Your task to perform on an android device: toggle location history Image 0: 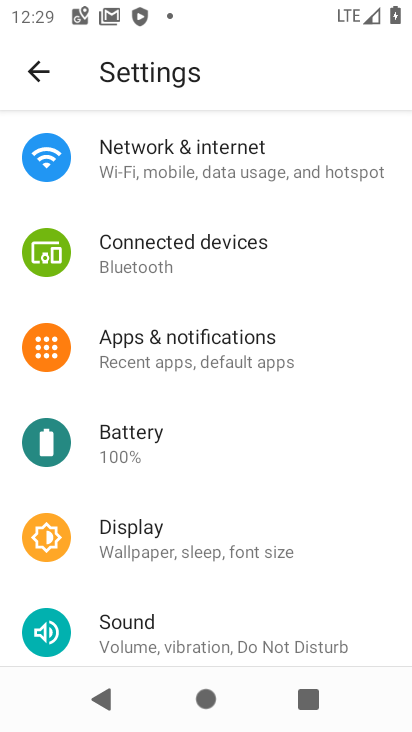
Step 0: press home button
Your task to perform on an android device: toggle location history Image 1: 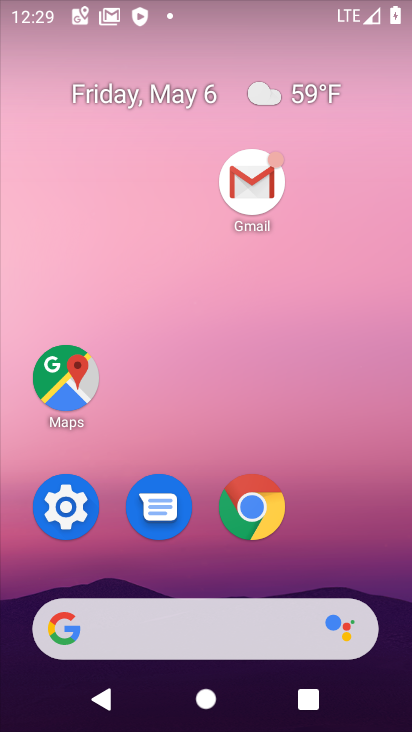
Step 1: click (65, 388)
Your task to perform on an android device: toggle location history Image 2: 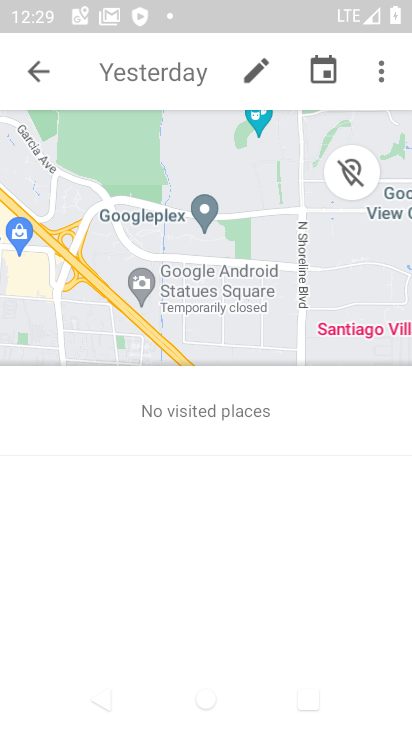
Step 2: click (386, 69)
Your task to perform on an android device: toggle location history Image 3: 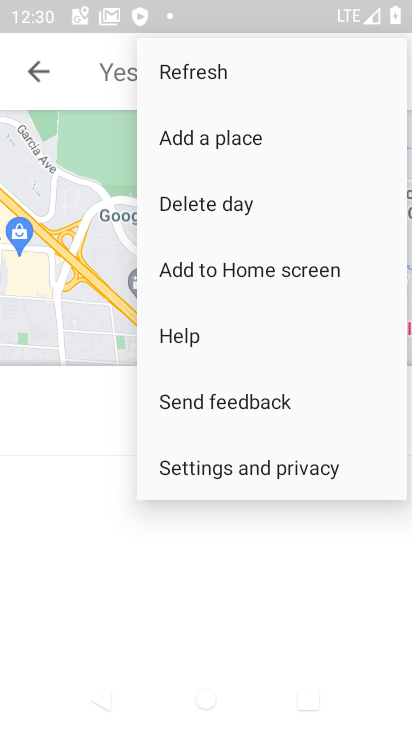
Step 3: click (178, 455)
Your task to perform on an android device: toggle location history Image 4: 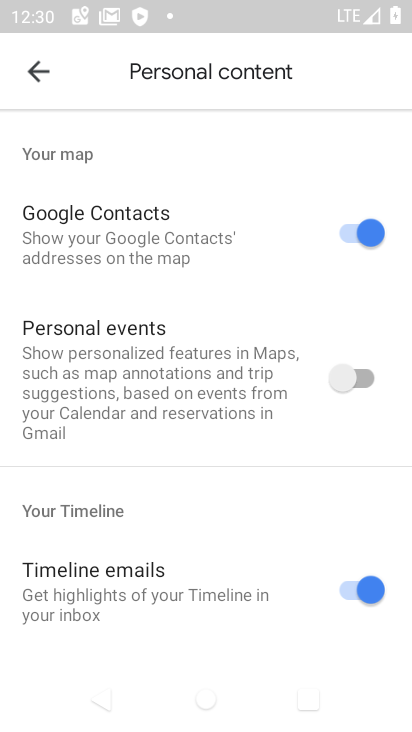
Step 4: drag from (265, 527) to (257, 246)
Your task to perform on an android device: toggle location history Image 5: 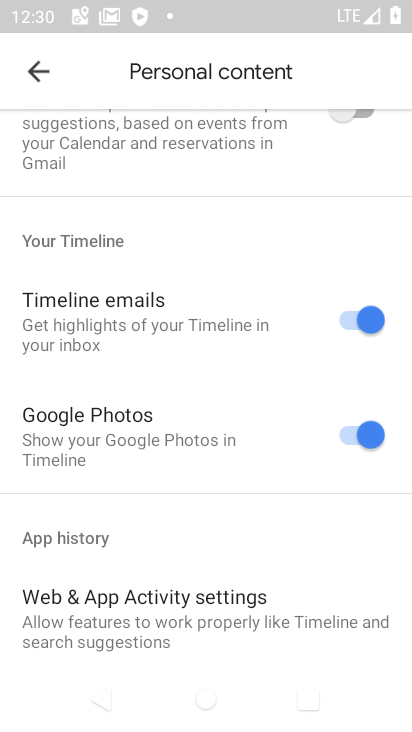
Step 5: drag from (193, 578) to (166, 238)
Your task to perform on an android device: toggle location history Image 6: 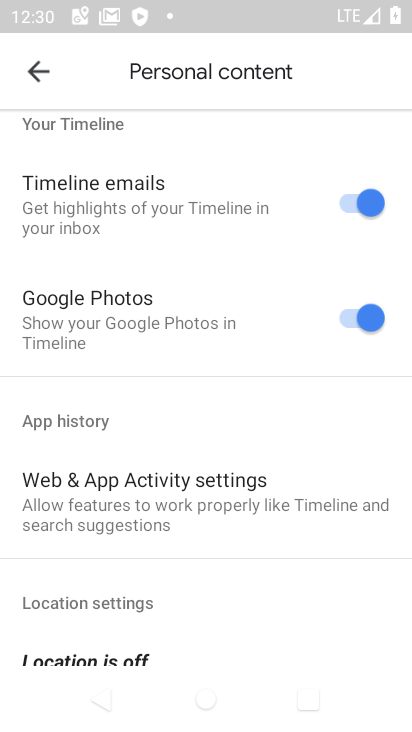
Step 6: drag from (218, 505) to (210, 276)
Your task to perform on an android device: toggle location history Image 7: 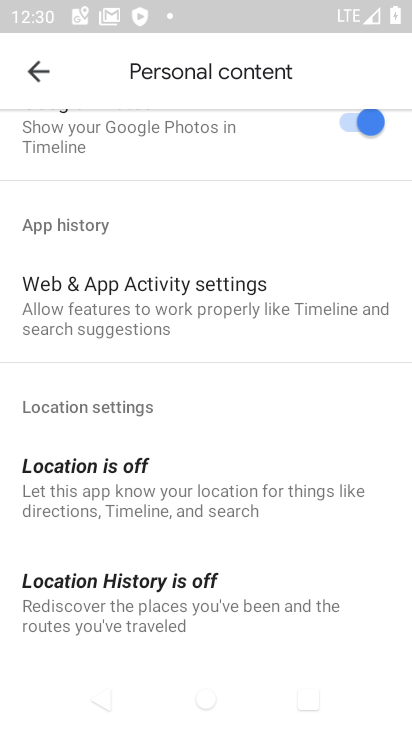
Step 7: click (154, 581)
Your task to perform on an android device: toggle location history Image 8: 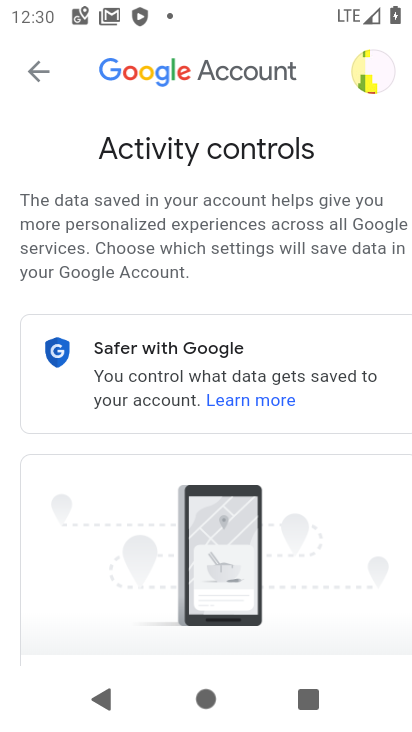
Step 8: drag from (310, 501) to (234, 243)
Your task to perform on an android device: toggle location history Image 9: 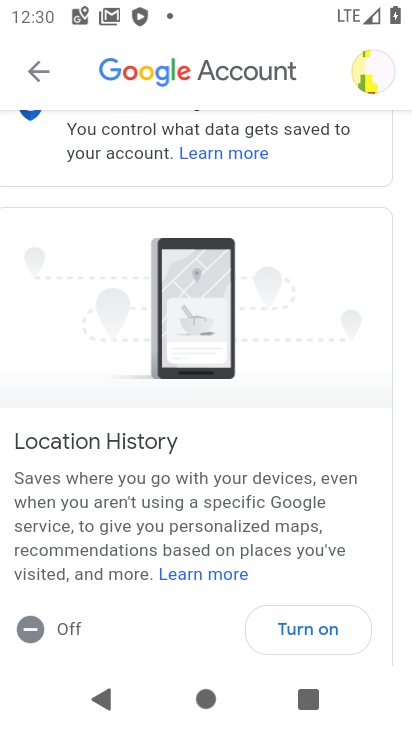
Step 9: drag from (240, 504) to (240, 254)
Your task to perform on an android device: toggle location history Image 10: 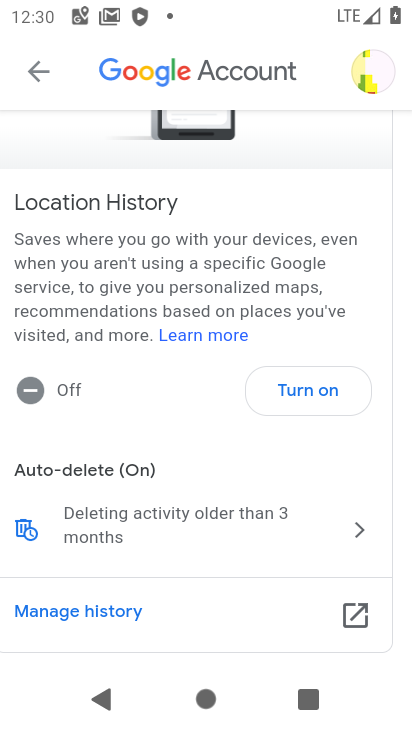
Step 10: click (315, 388)
Your task to perform on an android device: toggle location history Image 11: 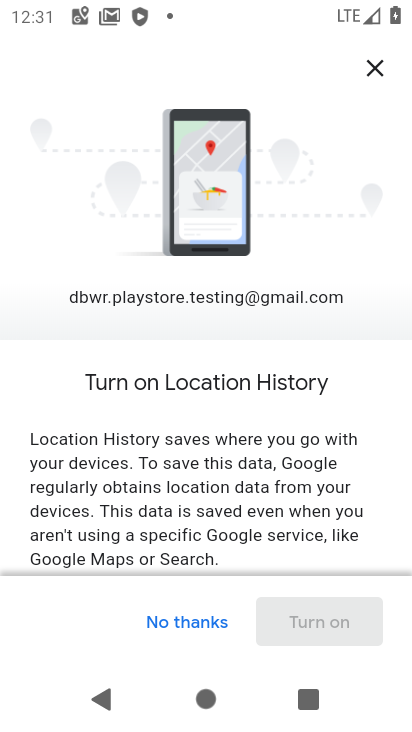
Step 11: drag from (307, 487) to (297, 239)
Your task to perform on an android device: toggle location history Image 12: 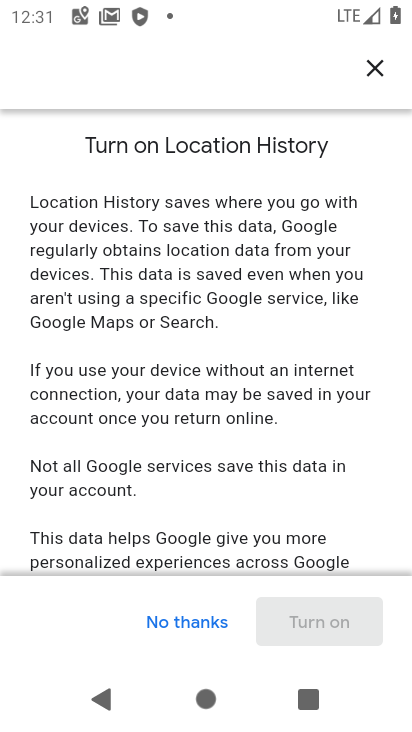
Step 12: drag from (274, 490) to (256, 185)
Your task to perform on an android device: toggle location history Image 13: 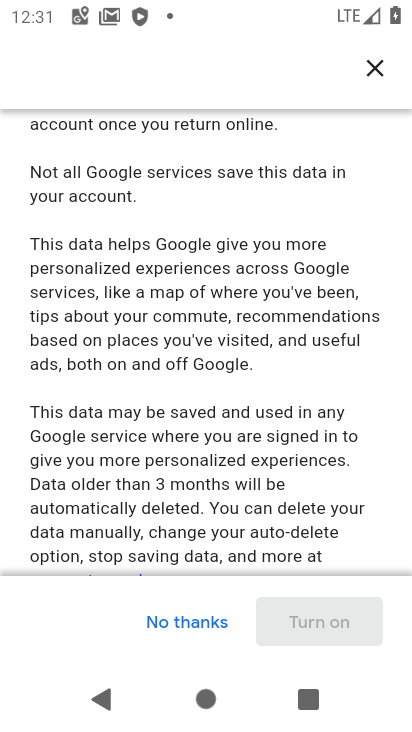
Step 13: drag from (287, 489) to (228, 122)
Your task to perform on an android device: toggle location history Image 14: 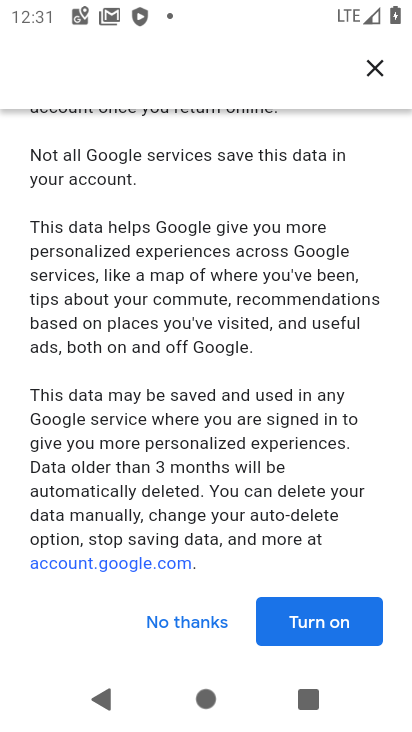
Step 14: click (311, 636)
Your task to perform on an android device: toggle location history Image 15: 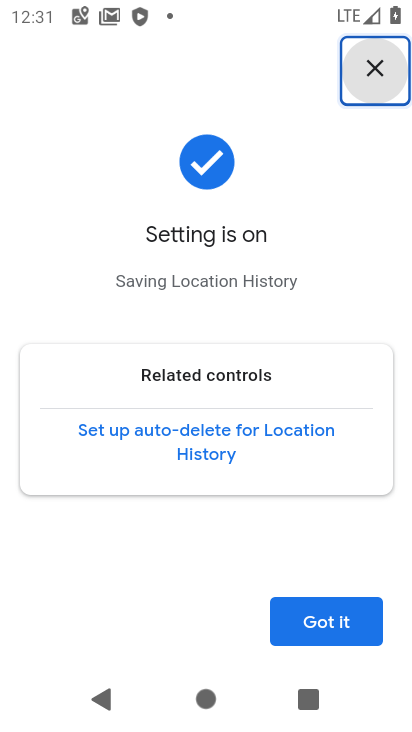
Step 15: click (322, 624)
Your task to perform on an android device: toggle location history Image 16: 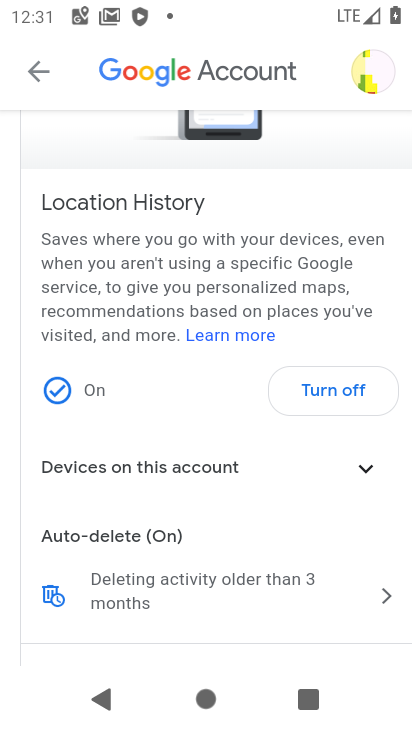
Step 16: task complete